Your task to perform on an android device: see sites visited before in the chrome app Image 0: 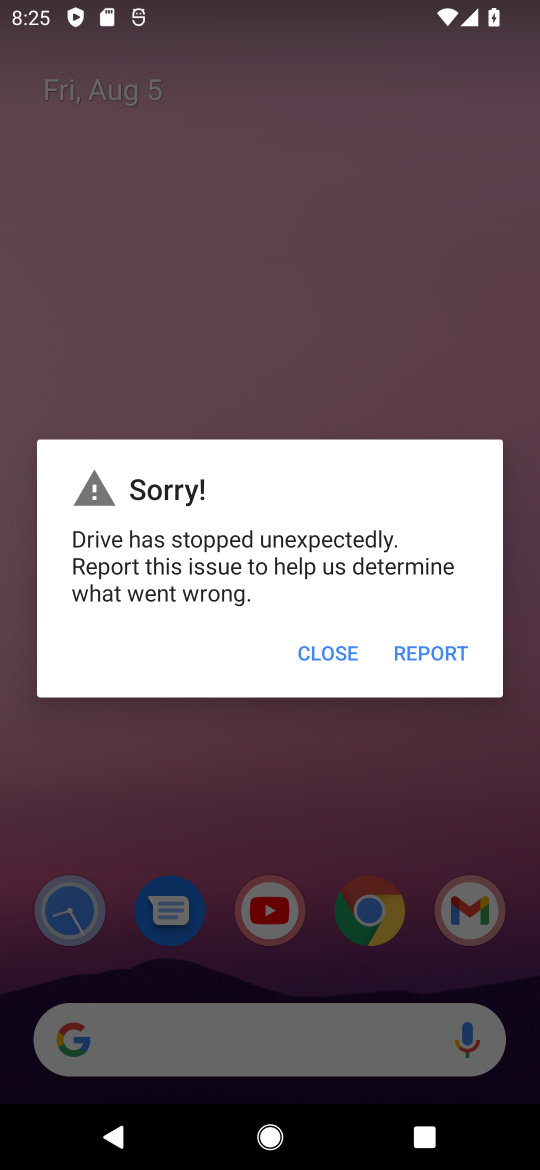
Step 0: press home button
Your task to perform on an android device: see sites visited before in the chrome app Image 1: 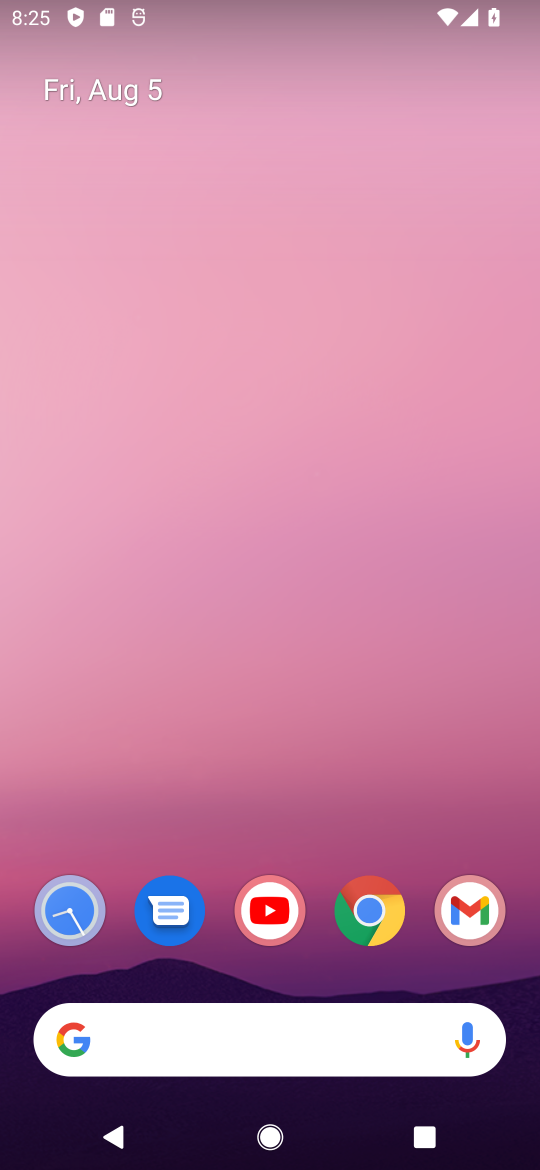
Step 1: click (374, 910)
Your task to perform on an android device: see sites visited before in the chrome app Image 2: 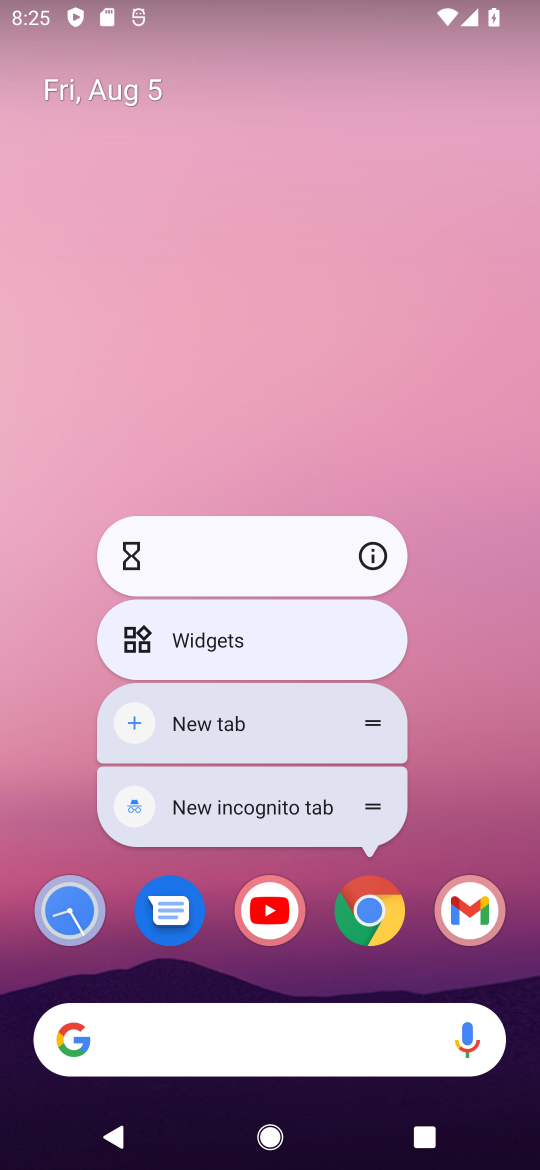
Step 2: click (353, 917)
Your task to perform on an android device: see sites visited before in the chrome app Image 3: 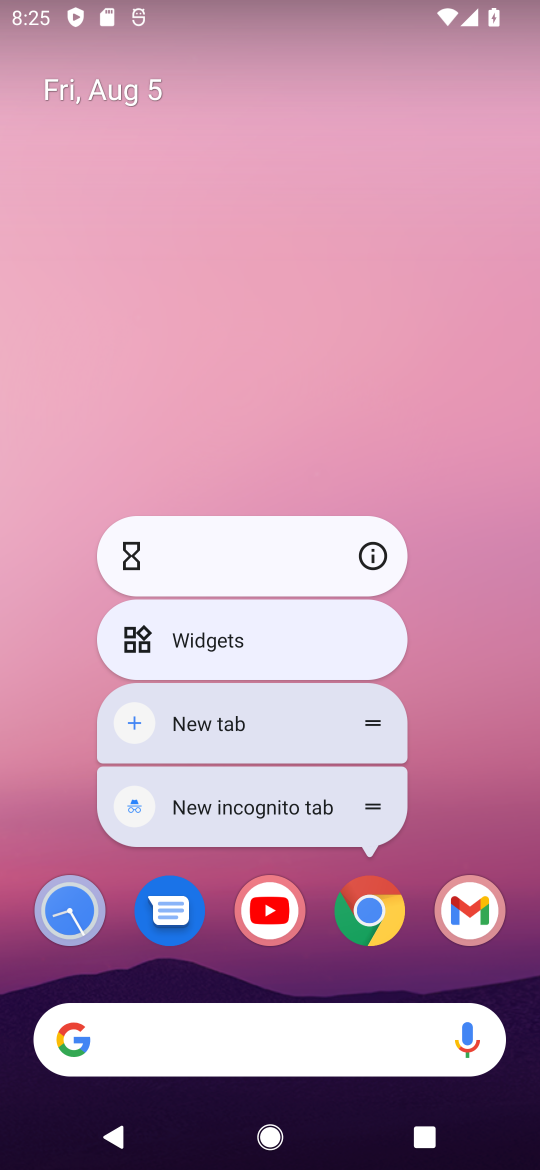
Step 3: click (353, 919)
Your task to perform on an android device: see sites visited before in the chrome app Image 4: 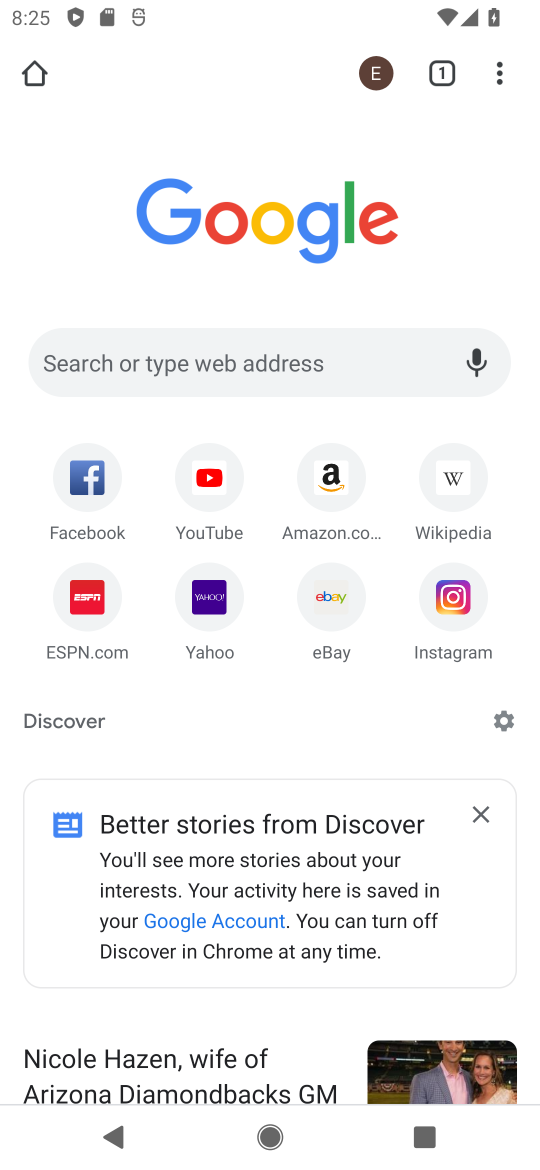
Step 4: task complete